Your task to perform on an android device: Search for seafood restaurants on Google Maps Image 0: 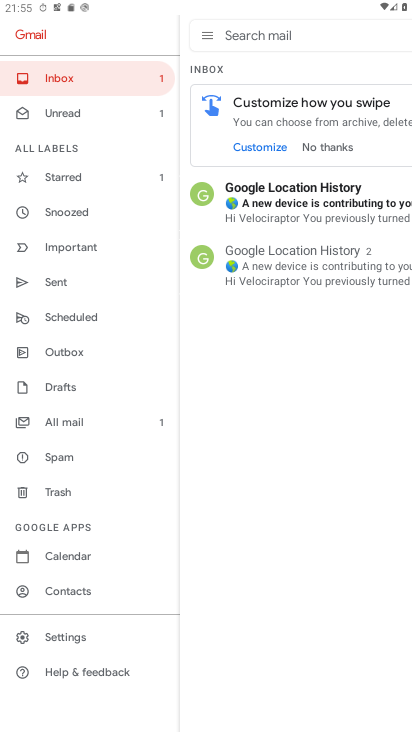
Step 0: press home button
Your task to perform on an android device: Search for seafood restaurants on Google Maps Image 1: 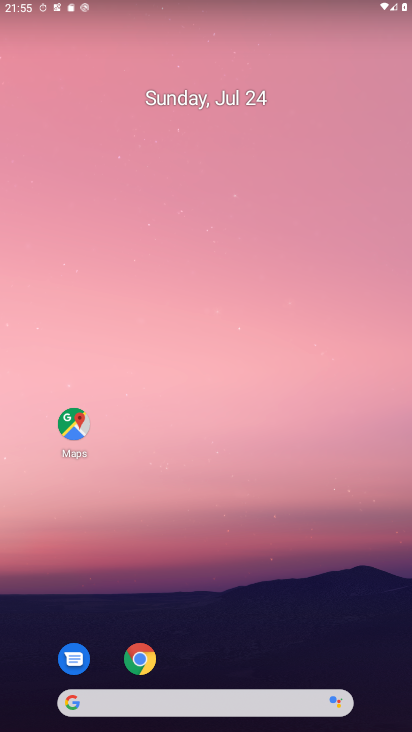
Step 1: drag from (215, 696) to (210, 168)
Your task to perform on an android device: Search for seafood restaurants on Google Maps Image 2: 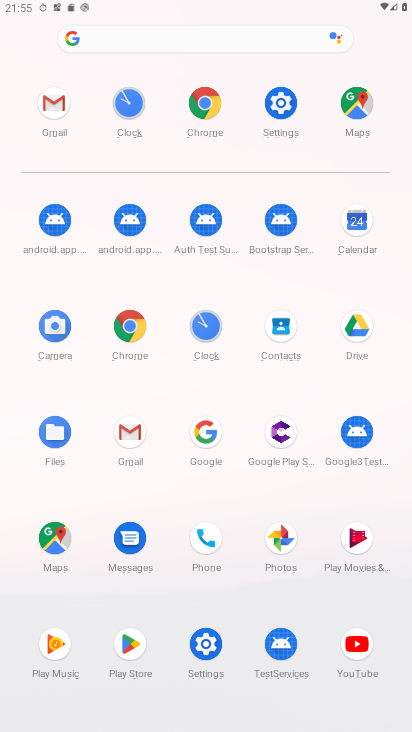
Step 2: click (54, 543)
Your task to perform on an android device: Search for seafood restaurants on Google Maps Image 3: 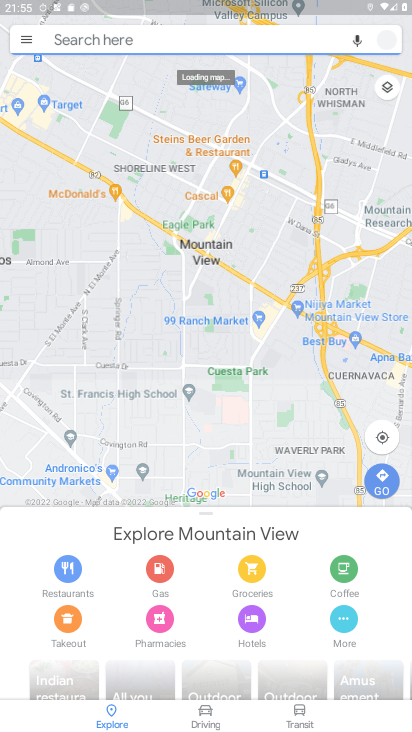
Step 3: click (135, 44)
Your task to perform on an android device: Search for seafood restaurants on Google Maps Image 4: 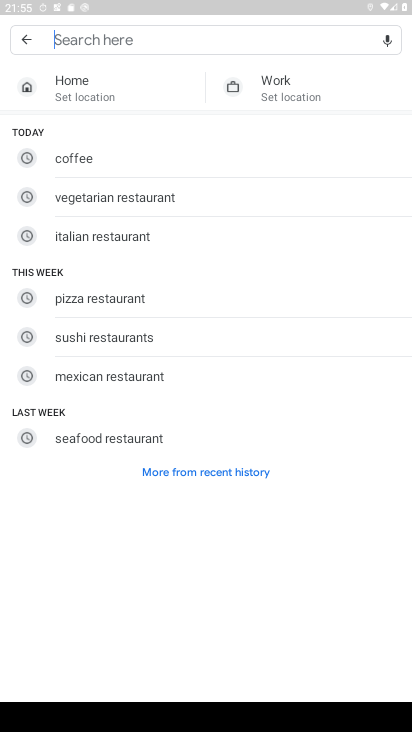
Step 4: type "seafood restaurants"
Your task to perform on an android device: Search for seafood restaurants on Google Maps Image 5: 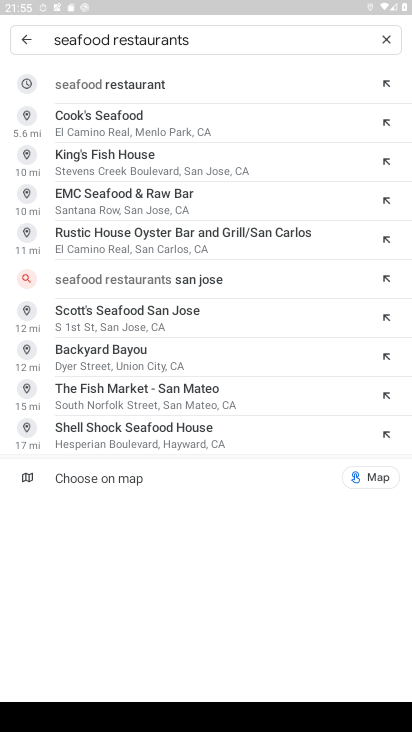
Step 5: click (125, 87)
Your task to perform on an android device: Search for seafood restaurants on Google Maps Image 6: 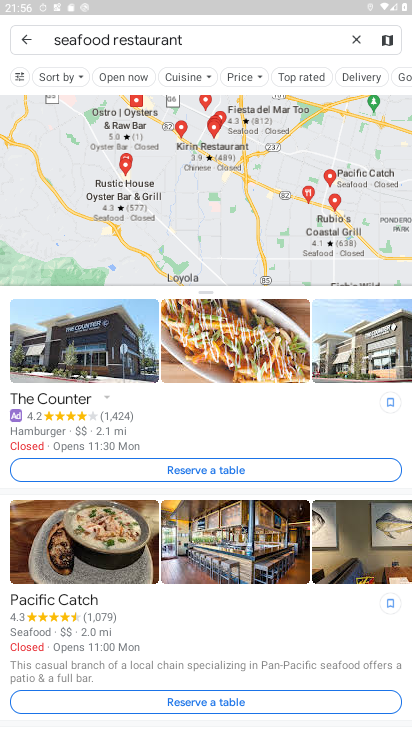
Step 6: task complete